Your task to perform on an android device: turn on the 24-hour format for clock Image 0: 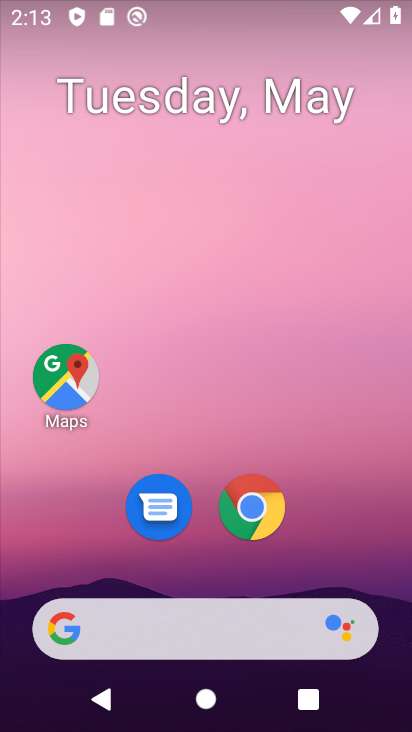
Step 0: drag from (346, 494) to (357, 124)
Your task to perform on an android device: turn on the 24-hour format for clock Image 1: 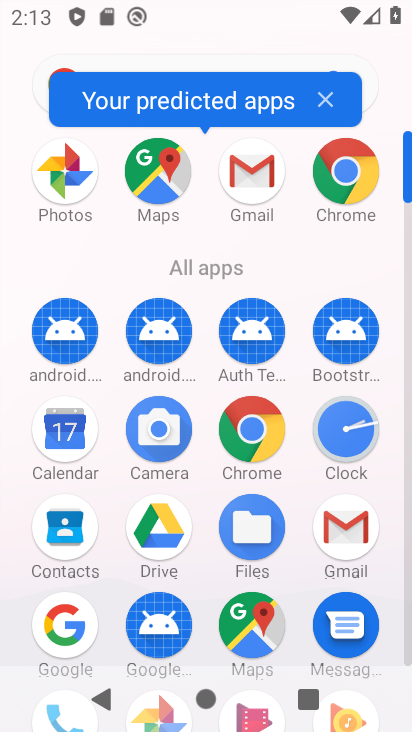
Step 1: click (364, 434)
Your task to perform on an android device: turn on the 24-hour format for clock Image 2: 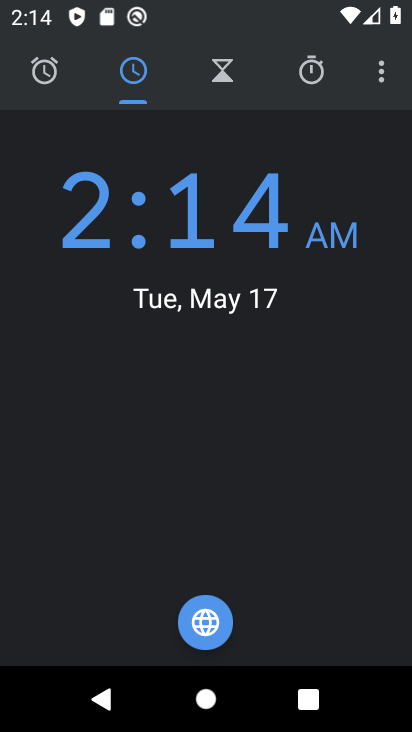
Step 2: click (376, 86)
Your task to perform on an android device: turn on the 24-hour format for clock Image 3: 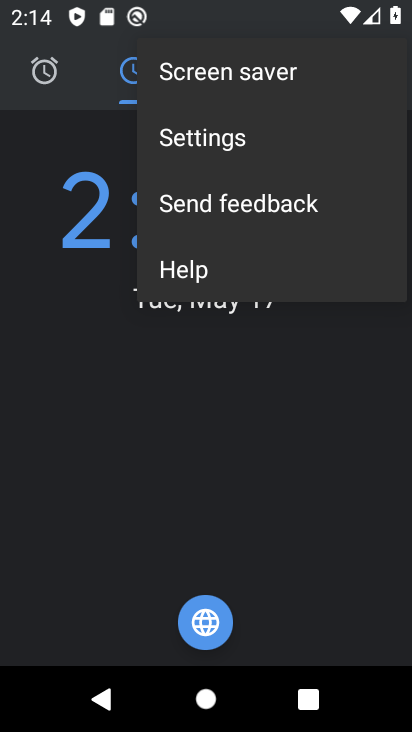
Step 3: click (272, 136)
Your task to perform on an android device: turn on the 24-hour format for clock Image 4: 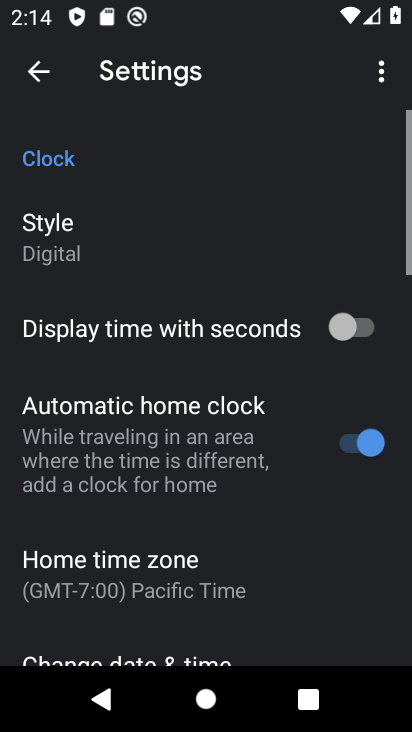
Step 4: drag from (300, 478) to (338, 208)
Your task to perform on an android device: turn on the 24-hour format for clock Image 5: 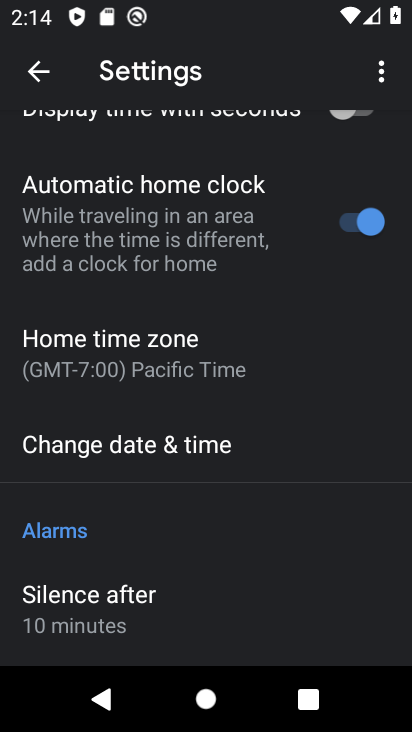
Step 5: click (219, 449)
Your task to perform on an android device: turn on the 24-hour format for clock Image 6: 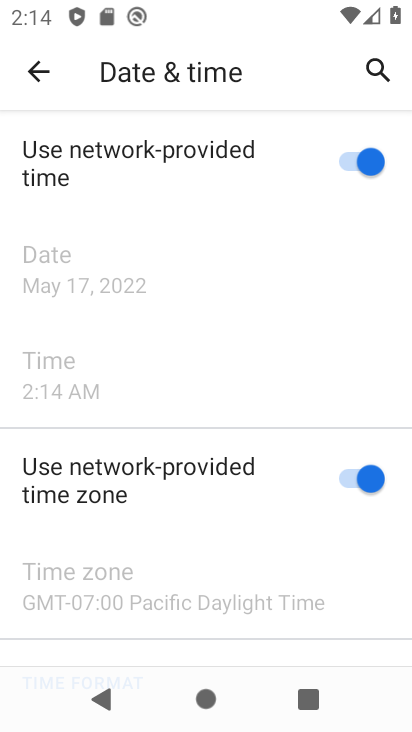
Step 6: drag from (229, 522) to (280, 170)
Your task to perform on an android device: turn on the 24-hour format for clock Image 7: 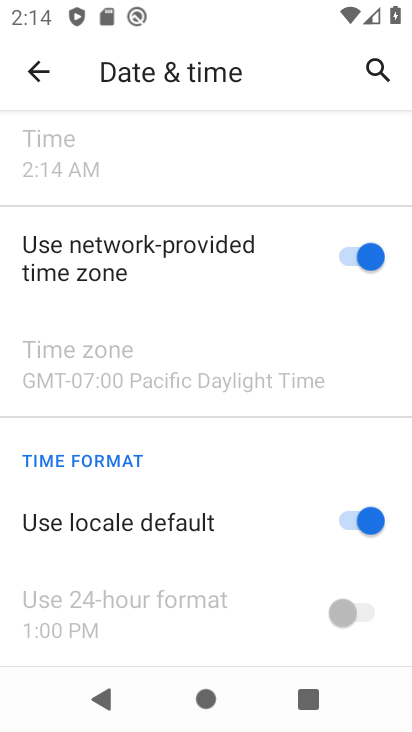
Step 7: click (341, 534)
Your task to perform on an android device: turn on the 24-hour format for clock Image 8: 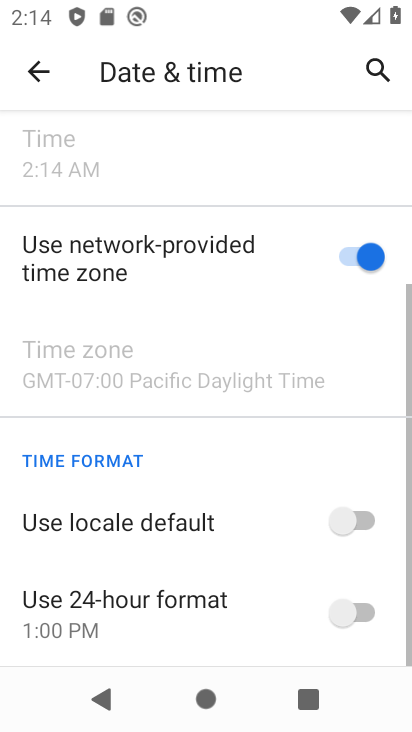
Step 8: click (338, 607)
Your task to perform on an android device: turn on the 24-hour format for clock Image 9: 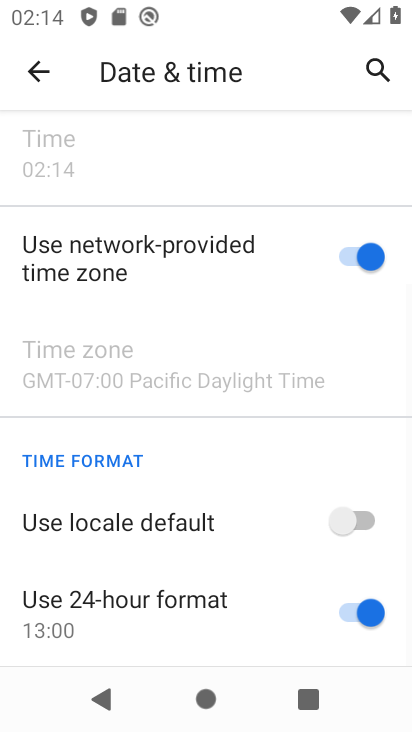
Step 9: task complete